Your task to perform on an android device: create a new album in the google photos Image 0: 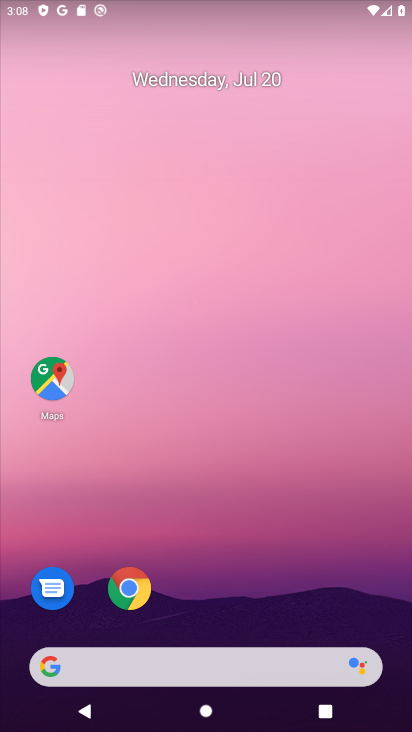
Step 0: drag from (252, 604) to (252, 48)
Your task to perform on an android device: create a new album in the google photos Image 1: 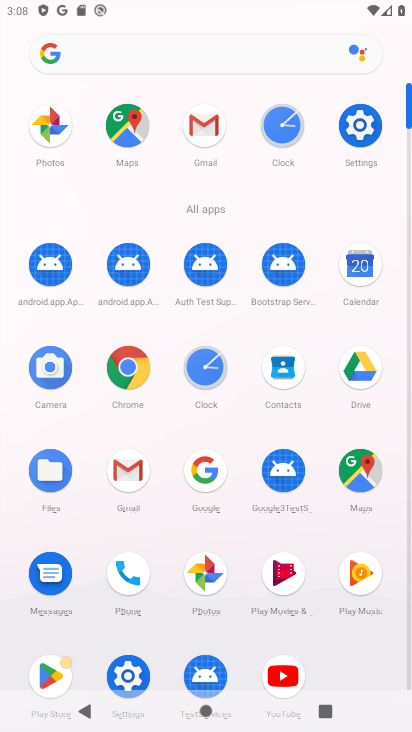
Step 1: click (212, 586)
Your task to perform on an android device: create a new album in the google photos Image 2: 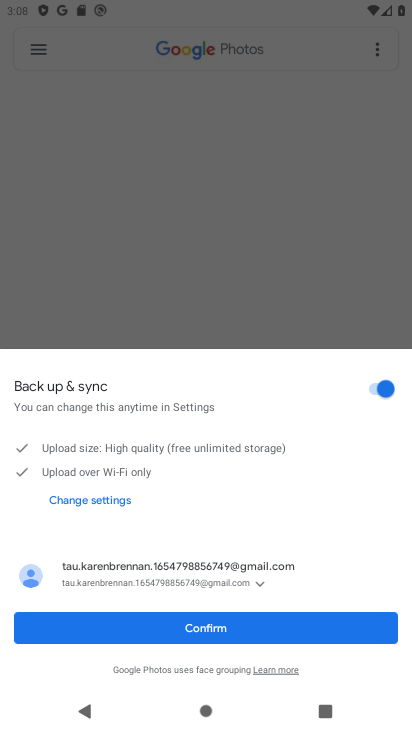
Step 2: task complete